Your task to perform on an android device: read, delete, or share a saved page in the chrome app Image 0: 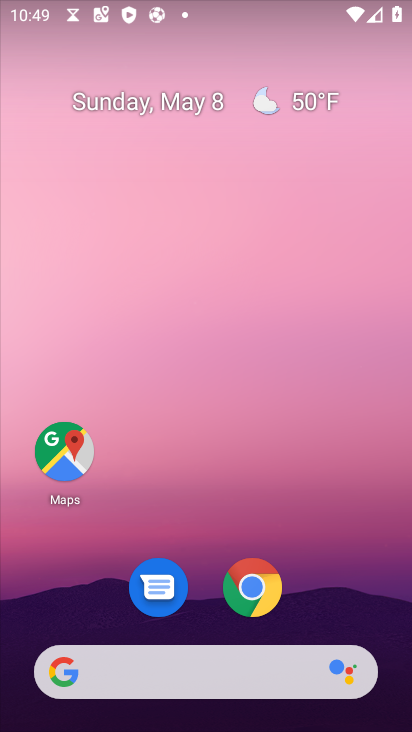
Step 0: click (245, 596)
Your task to perform on an android device: read, delete, or share a saved page in the chrome app Image 1: 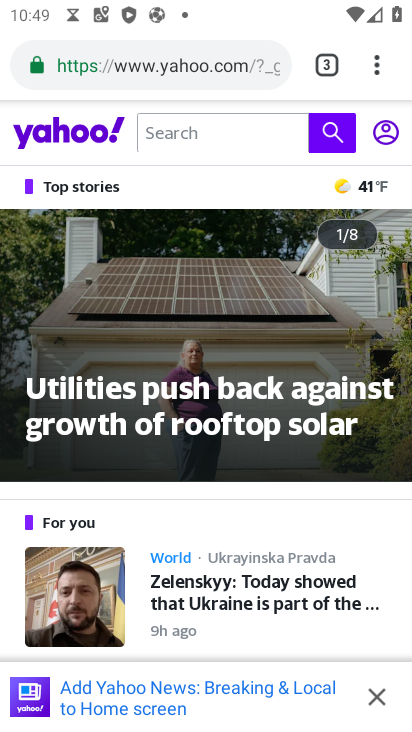
Step 1: drag from (375, 65) to (152, 244)
Your task to perform on an android device: read, delete, or share a saved page in the chrome app Image 2: 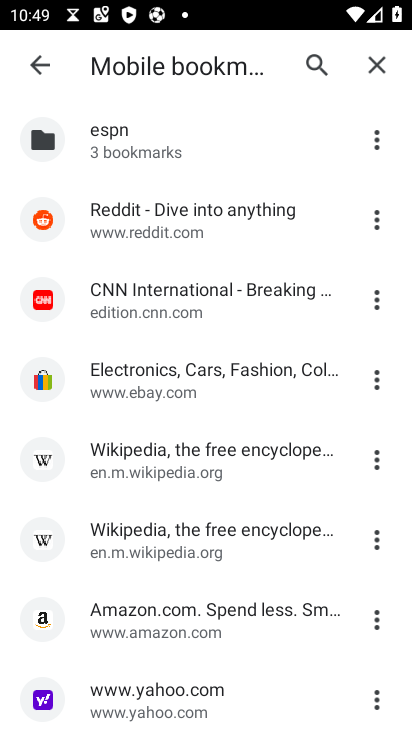
Step 2: click (378, 461)
Your task to perform on an android device: read, delete, or share a saved page in the chrome app Image 3: 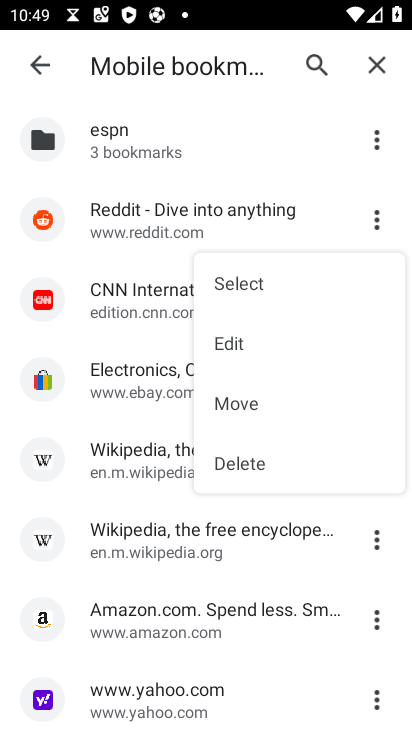
Step 3: click (246, 460)
Your task to perform on an android device: read, delete, or share a saved page in the chrome app Image 4: 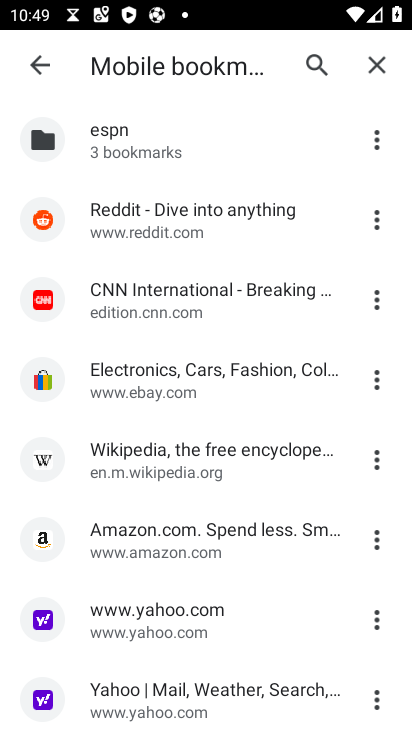
Step 4: task complete